Your task to perform on an android device: Open privacy settings Image 0: 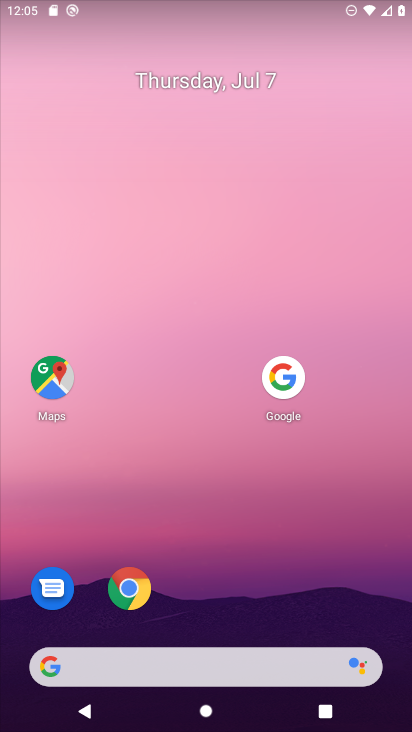
Step 0: drag from (202, 662) to (343, 83)
Your task to perform on an android device: Open privacy settings Image 1: 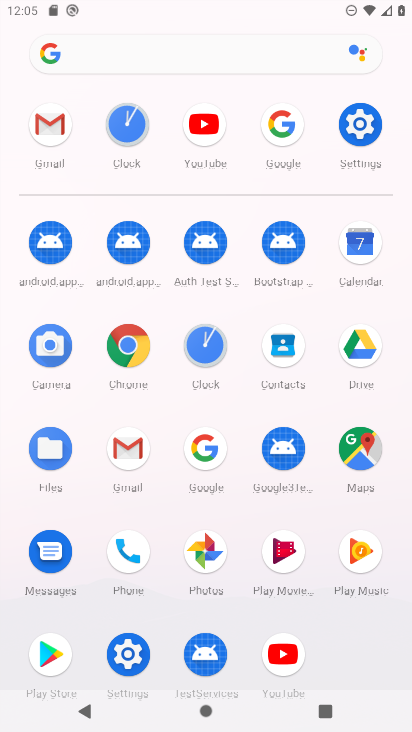
Step 1: click (359, 130)
Your task to perform on an android device: Open privacy settings Image 2: 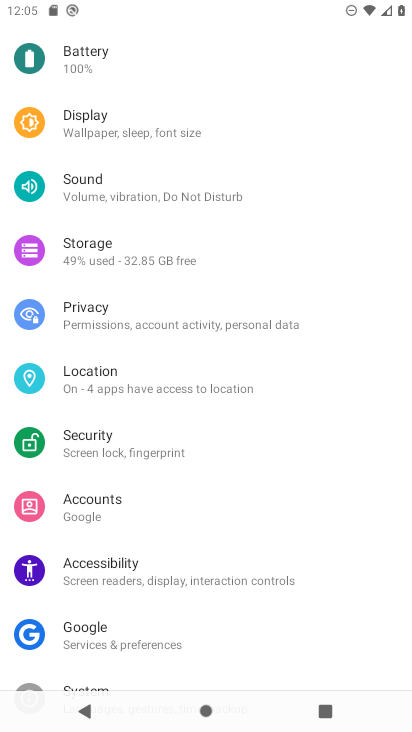
Step 2: click (101, 319)
Your task to perform on an android device: Open privacy settings Image 3: 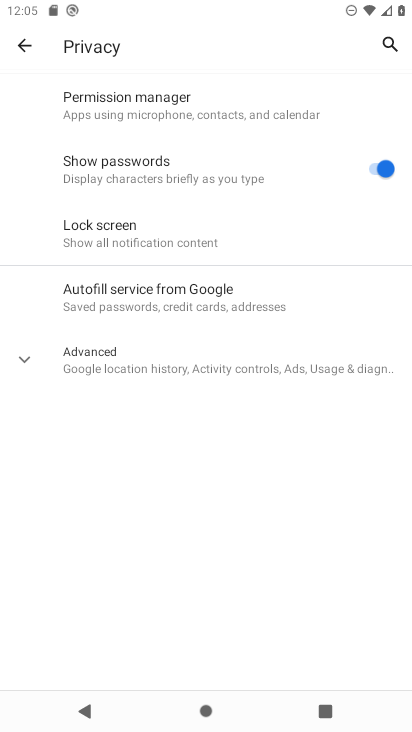
Step 3: task complete